Your task to perform on an android device: turn off data saver in the chrome app Image 0: 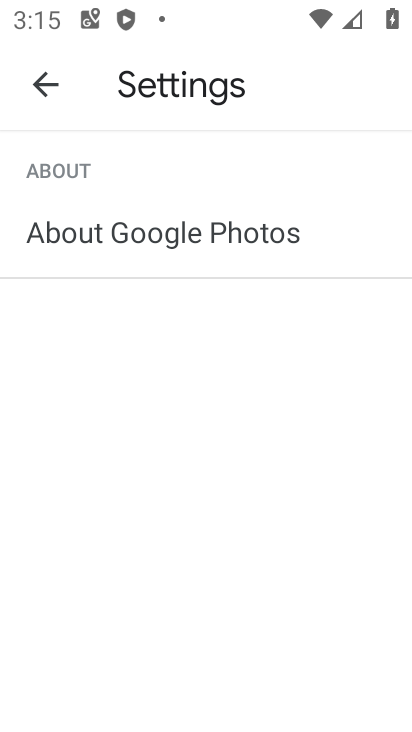
Step 0: press home button
Your task to perform on an android device: turn off data saver in the chrome app Image 1: 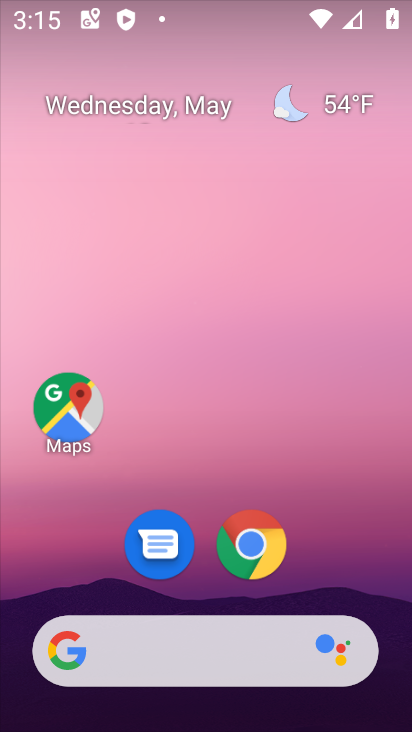
Step 1: click (254, 560)
Your task to perform on an android device: turn off data saver in the chrome app Image 2: 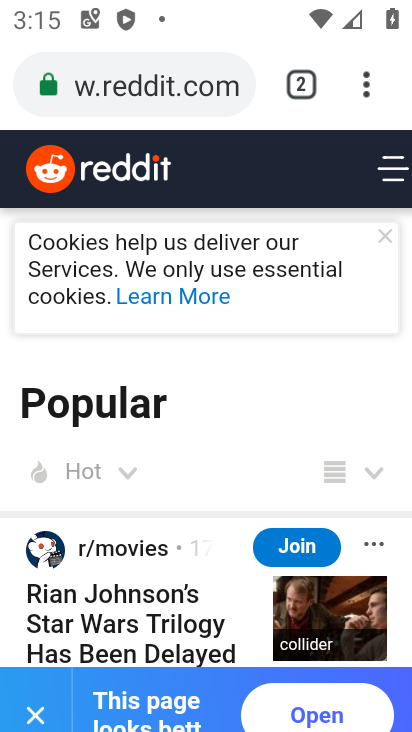
Step 2: click (373, 104)
Your task to perform on an android device: turn off data saver in the chrome app Image 3: 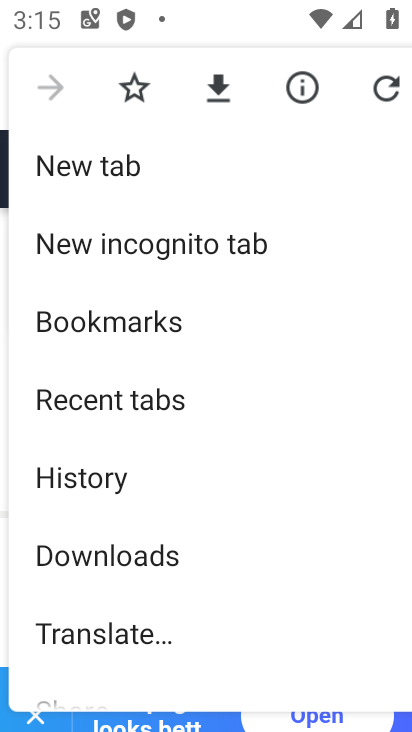
Step 3: drag from (238, 545) to (289, 269)
Your task to perform on an android device: turn off data saver in the chrome app Image 4: 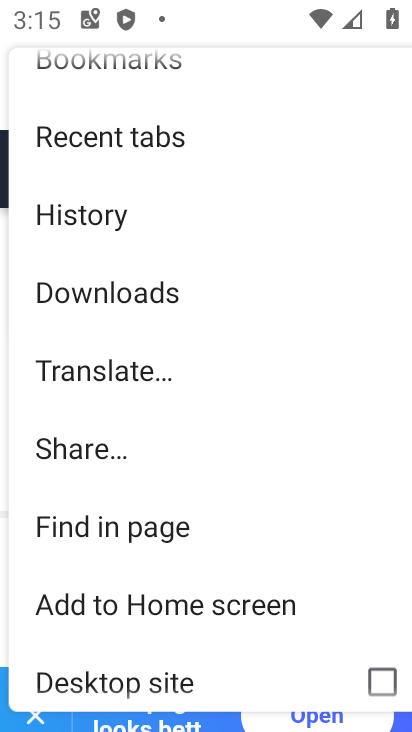
Step 4: drag from (175, 652) to (237, 305)
Your task to perform on an android device: turn off data saver in the chrome app Image 5: 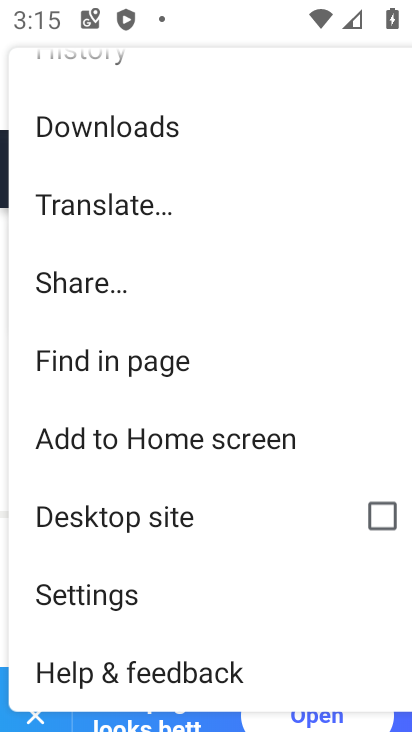
Step 5: click (172, 576)
Your task to perform on an android device: turn off data saver in the chrome app Image 6: 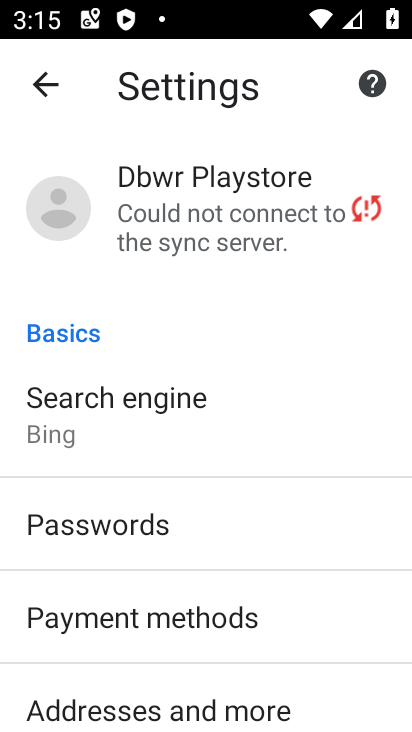
Step 6: task complete